Your task to perform on an android device: toggle airplane mode Image 0: 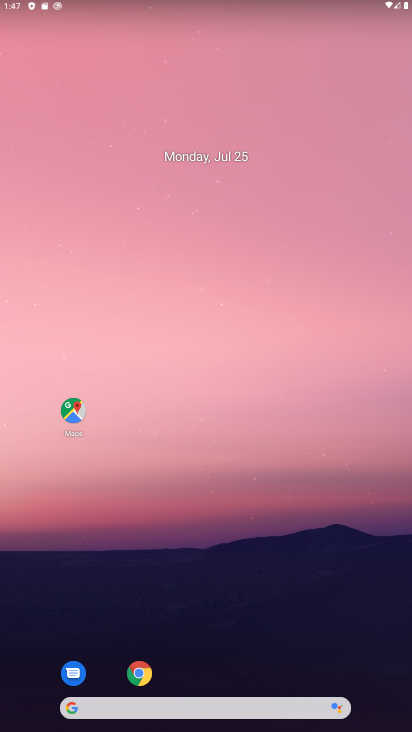
Step 0: drag from (237, 17) to (243, 654)
Your task to perform on an android device: toggle airplane mode Image 1: 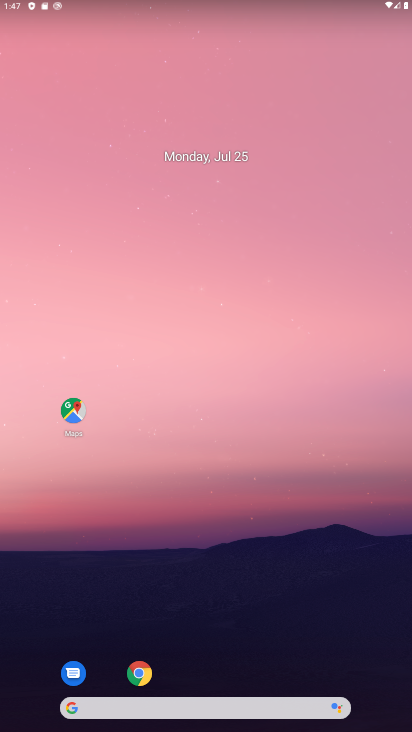
Step 1: drag from (335, 12) to (272, 653)
Your task to perform on an android device: toggle airplane mode Image 2: 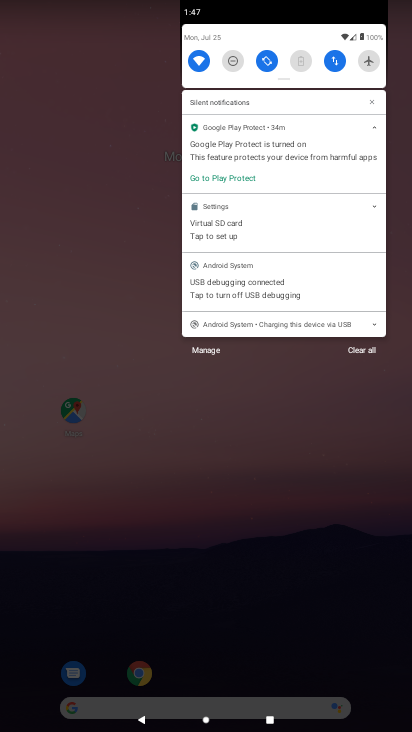
Step 2: click (371, 50)
Your task to perform on an android device: toggle airplane mode Image 3: 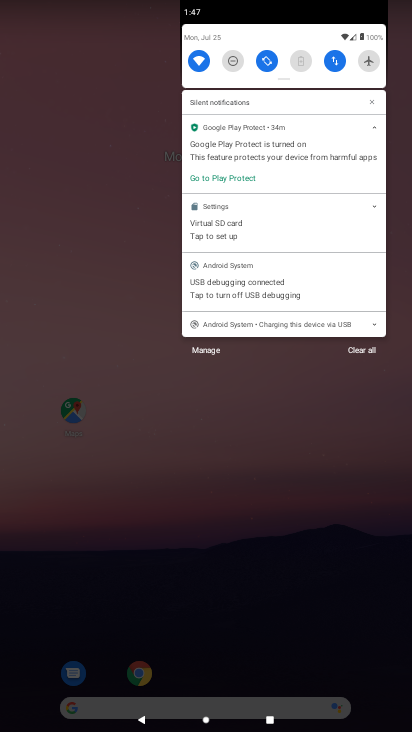
Step 3: click (371, 50)
Your task to perform on an android device: toggle airplane mode Image 4: 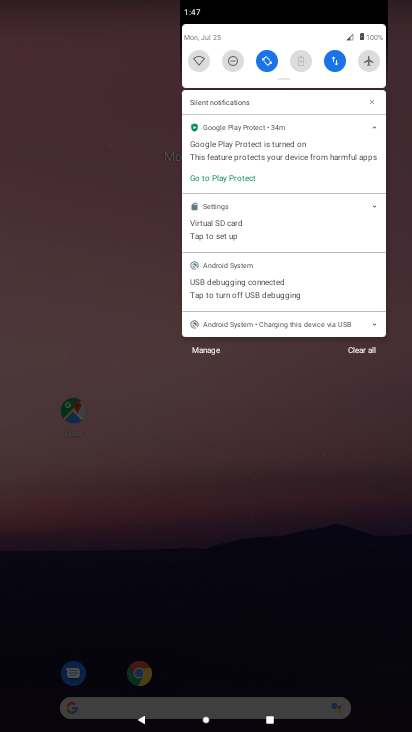
Step 4: click (371, 50)
Your task to perform on an android device: toggle airplane mode Image 5: 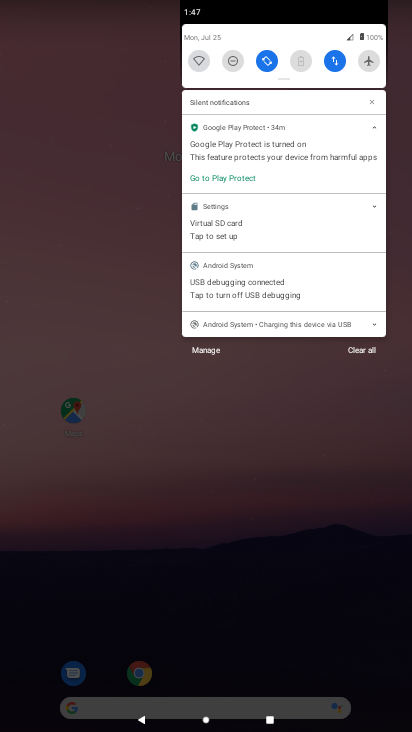
Step 5: click (371, 50)
Your task to perform on an android device: toggle airplane mode Image 6: 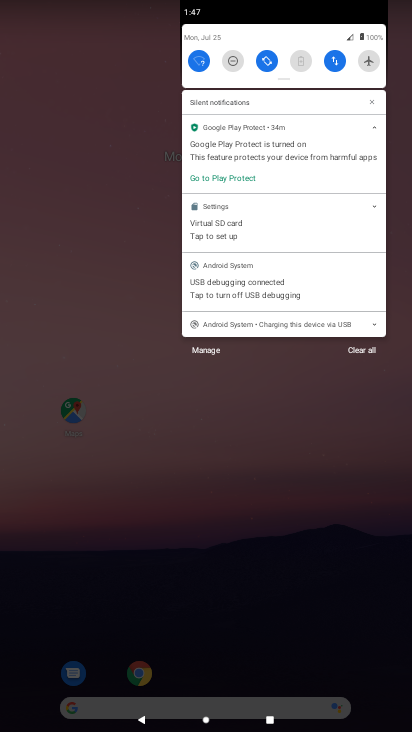
Step 6: click (374, 61)
Your task to perform on an android device: toggle airplane mode Image 7: 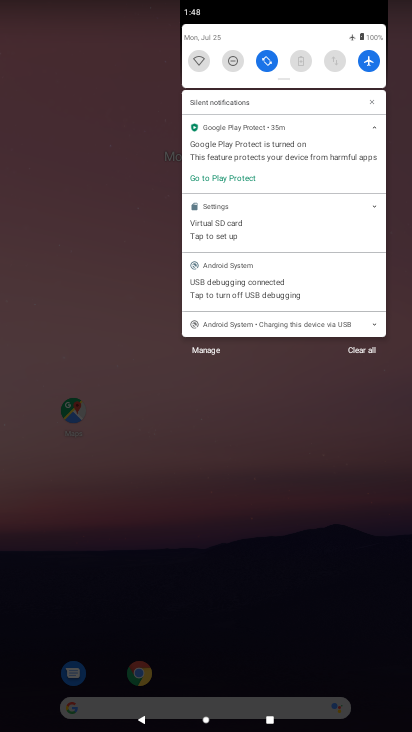
Step 7: click (364, 66)
Your task to perform on an android device: toggle airplane mode Image 8: 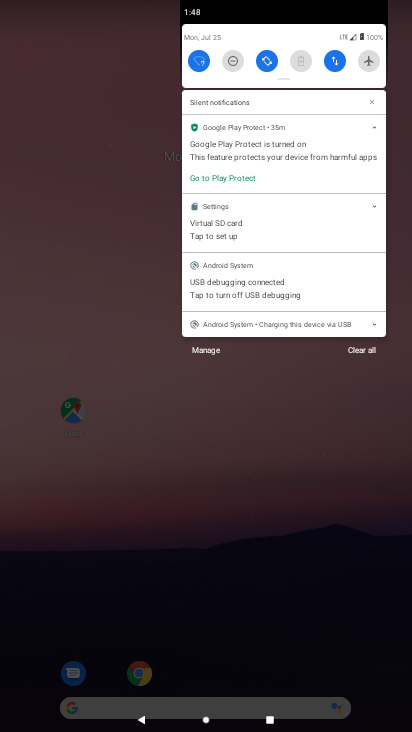
Step 8: task complete